Your task to perform on an android device: Go to wifi settings Image 0: 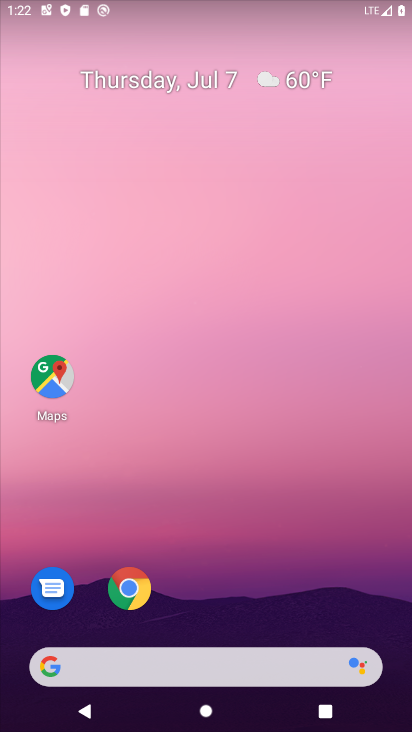
Step 0: drag from (239, 583) to (297, 201)
Your task to perform on an android device: Go to wifi settings Image 1: 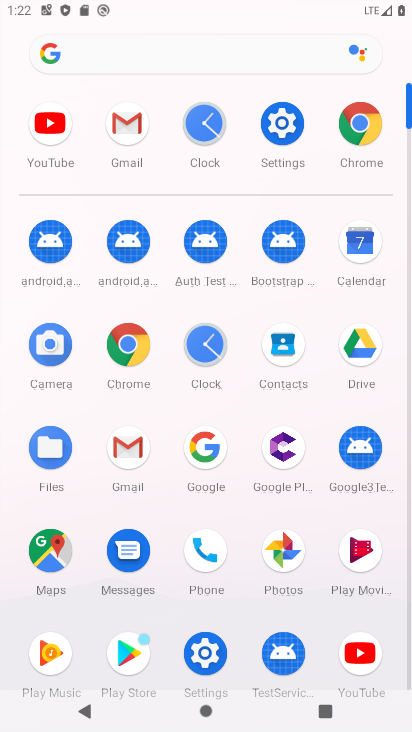
Step 1: click (291, 115)
Your task to perform on an android device: Go to wifi settings Image 2: 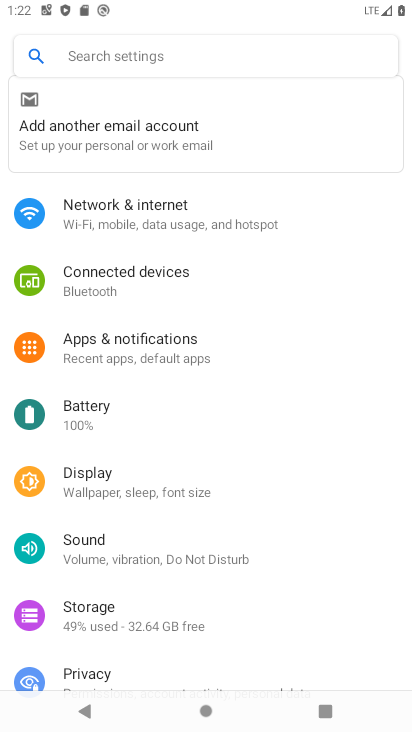
Step 2: click (167, 215)
Your task to perform on an android device: Go to wifi settings Image 3: 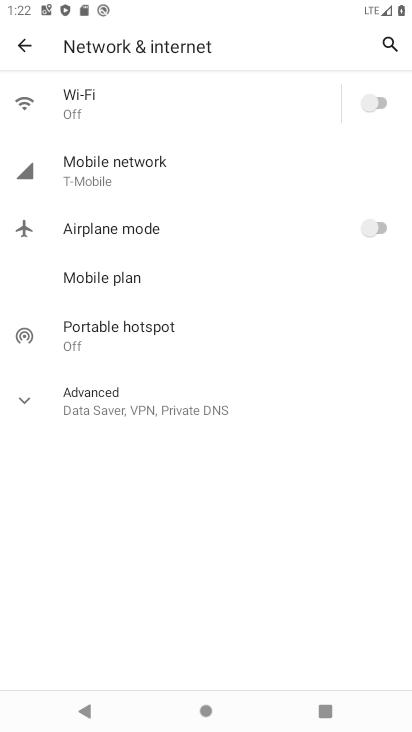
Step 3: click (179, 107)
Your task to perform on an android device: Go to wifi settings Image 4: 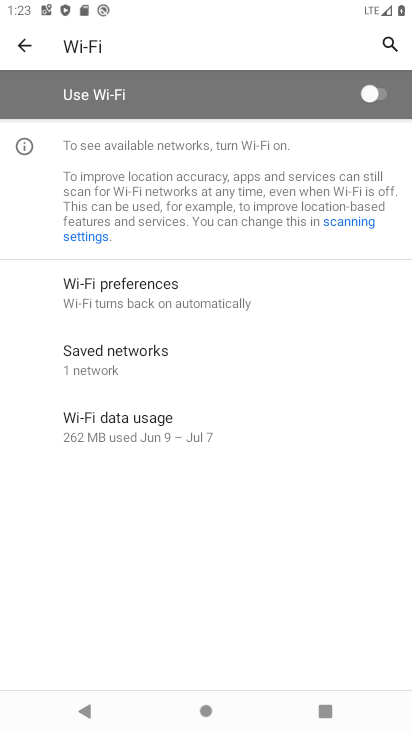
Step 4: task complete